Your task to perform on an android device: Search for Italian restaurants on Maps Image 0: 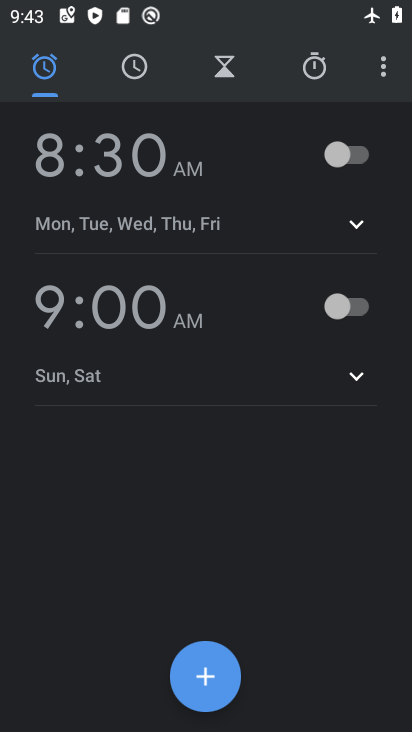
Step 0: press home button
Your task to perform on an android device: Search for Italian restaurants on Maps Image 1: 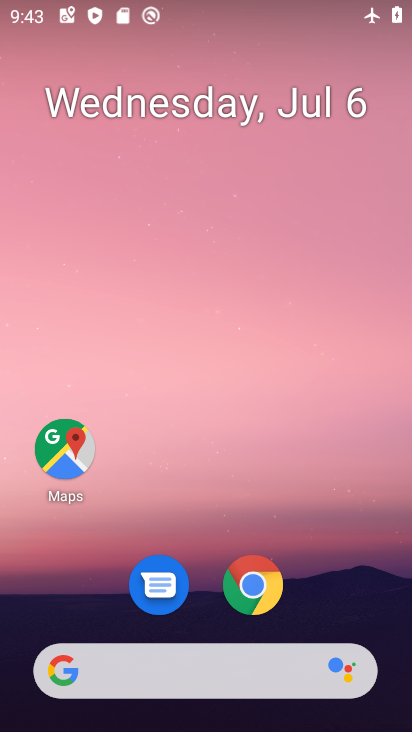
Step 1: click (57, 451)
Your task to perform on an android device: Search for Italian restaurants on Maps Image 2: 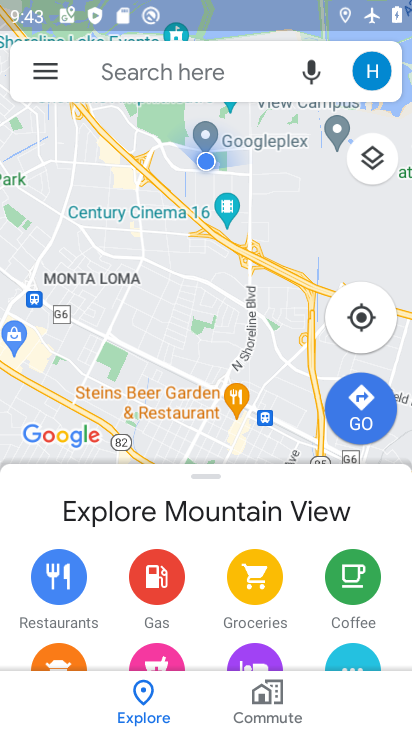
Step 2: click (189, 58)
Your task to perform on an android device: Search for Italian restaurants on Maps Image 3: 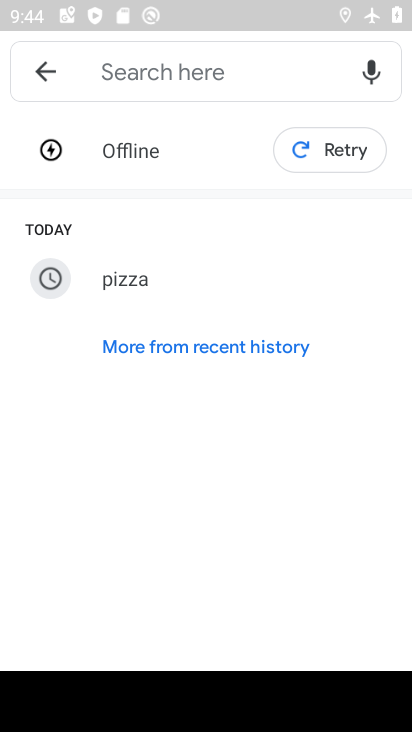
Step 3: type "italian restaurants"
Your task to perform on an android device: Search for Italian restaurants on Maps Image 4: 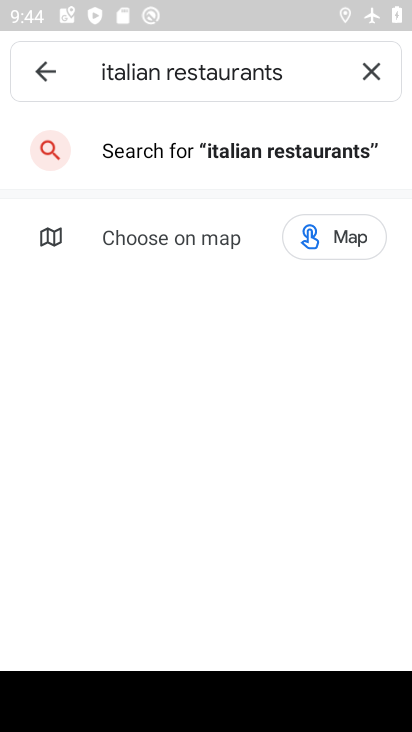
Step 4: click (330, 153)
Your task to perform on an android device: Search for Italian restaurants on Maps Image 5: 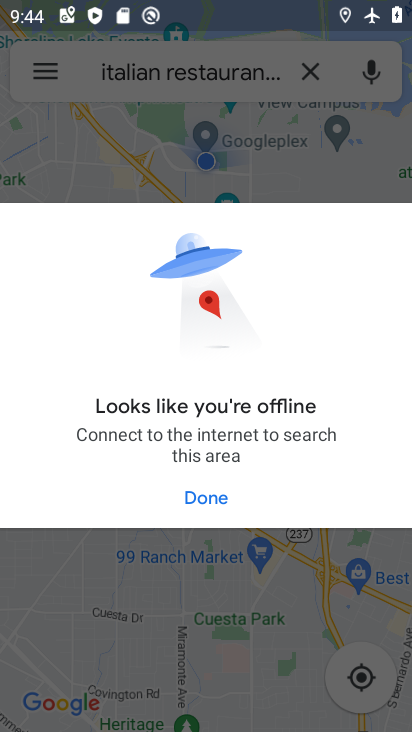
Step 5: click (209, 494)
Your task to perform on an android device: Search for Italian restaurants on Maps Image 6: 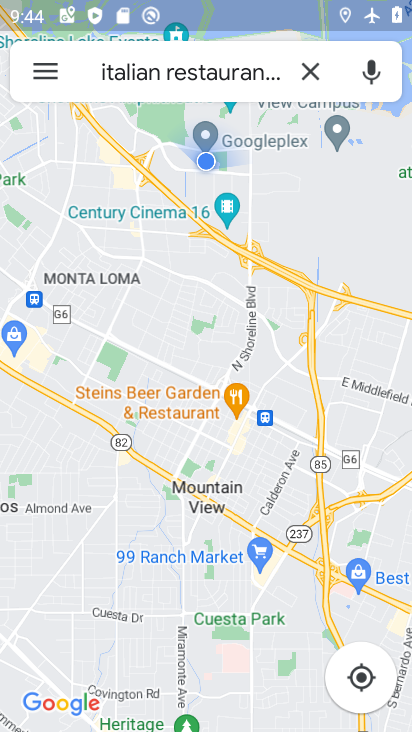
Step 6: task complete